Your task to perform on an android device: Go to network settings Image 0: 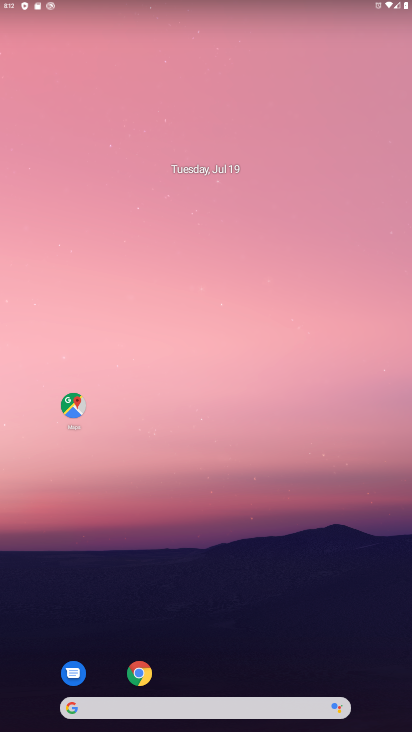
Step 0: drag from (277, 721) to (247, 263)
Your task to perform on an android device: Go to network settings Image 1: 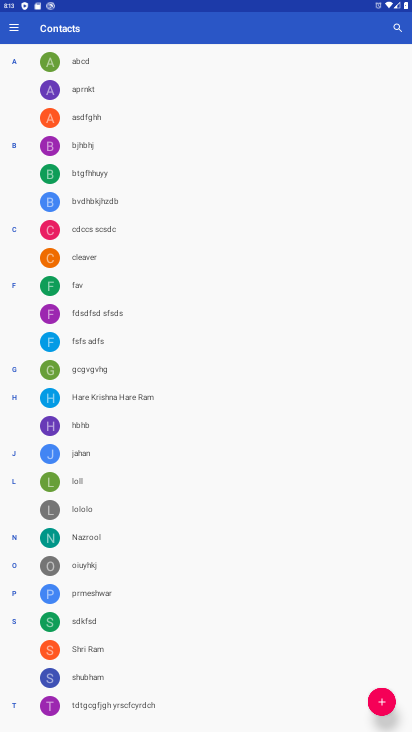
Step 1: press back button
Your task to perform on an android device: Go to network settings Image 2: 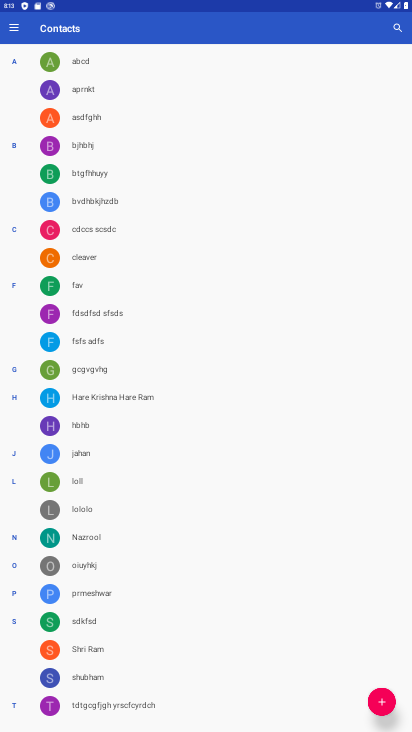
Step 2: press back button
Your task to perform on an android device: Go to network settings Image 3: 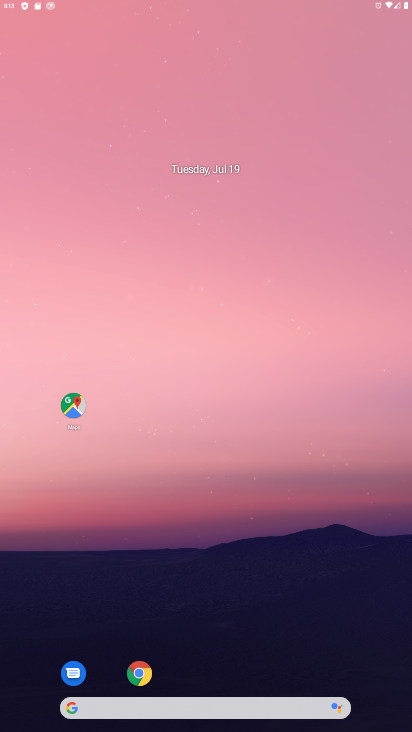
Step 3: press back button
Your task to perform on an android device: Go to network settings Image 4: 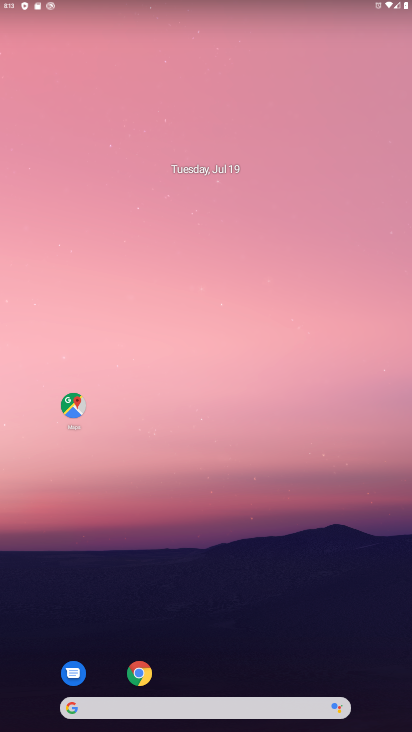
Step 4: press home button
Your task to perform on an android device: Go to network settings Image 5: 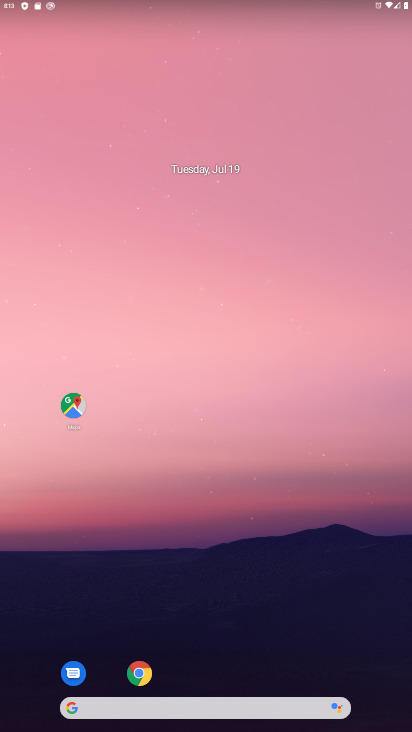
Step 5: drag from (282, 655) to (223, 299)
Your task to perform on an android device: Go to network settings Image 6: 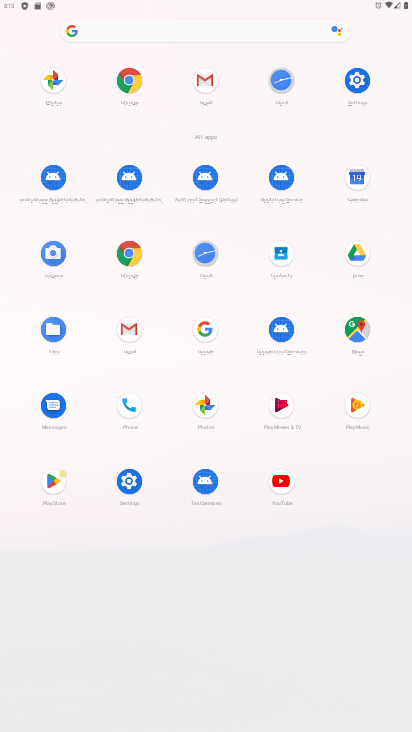
Step 6: click (361, 73)
Your task to perform on an android device: Go to network settings Image 7: 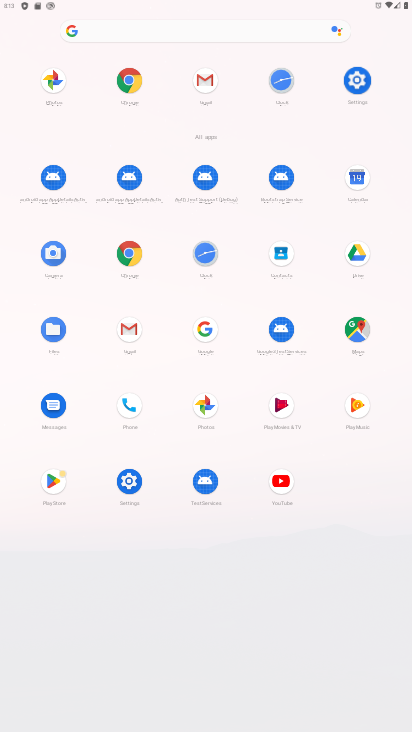
Step 7: click (361, 73)
Your task to perform on an android device: Go to network settings Image 8: 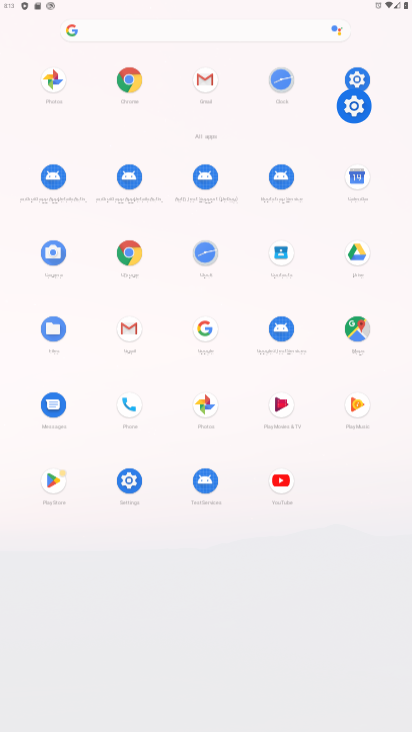
Step 8: click (357, 74)
Your task to perform on an android device: Go to network settings Image 9: 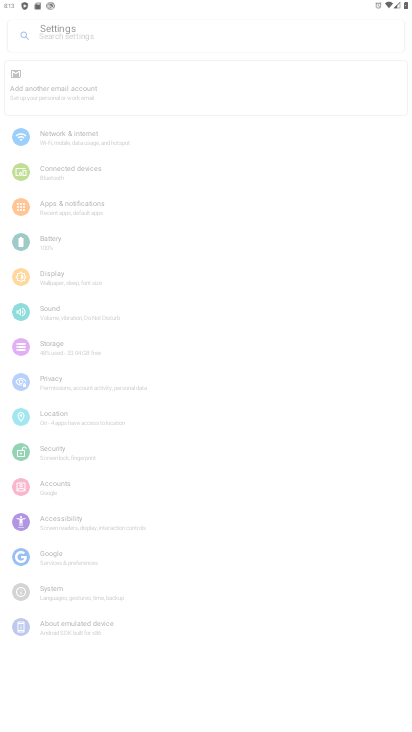
Step 9: click (342, 78)
Your task to perform on an android device: Go to network settings Image 10: 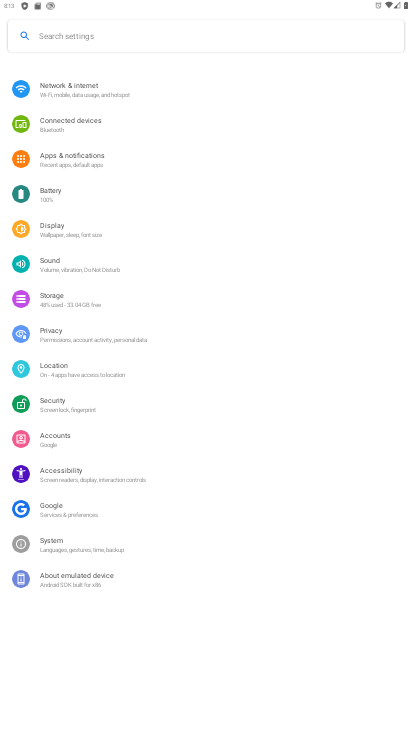
Step 10: click (334, 83)
Your task to perform on an android device: Go to network settings Image 11: 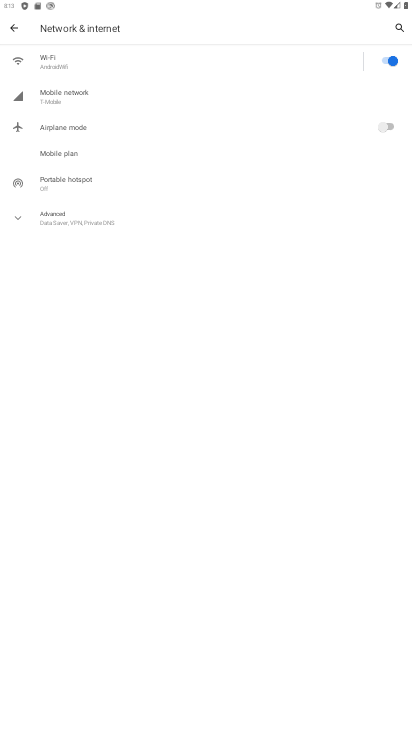
Step 11: task complete